Your task to perform on an android device: choose inbox layout in the gmail app Image 0: 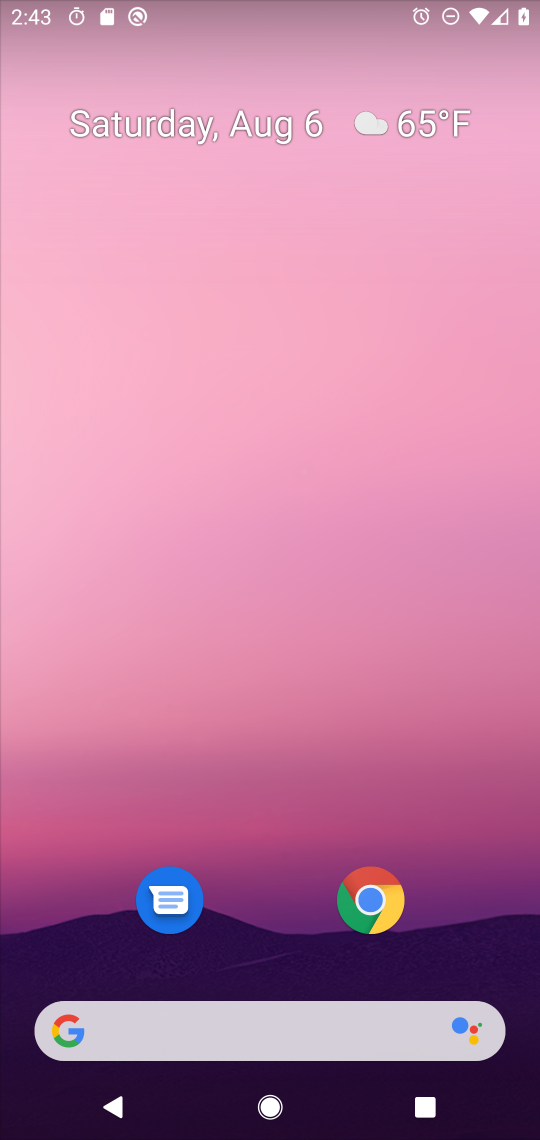
Step 0: drag from (257, 764) to (259, 58)
Your task to perform on an android device: choose inbox layout in the gmail app Image 1: 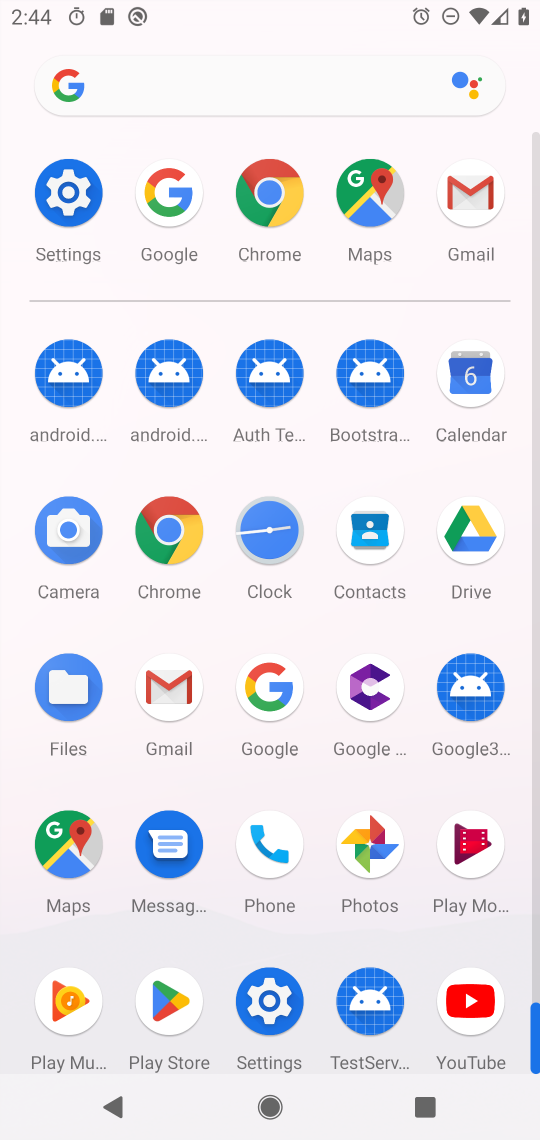
Step 1: click (165, 688)
Your task to perform on an android device: choose inbox layout in the gmail app Image 2: 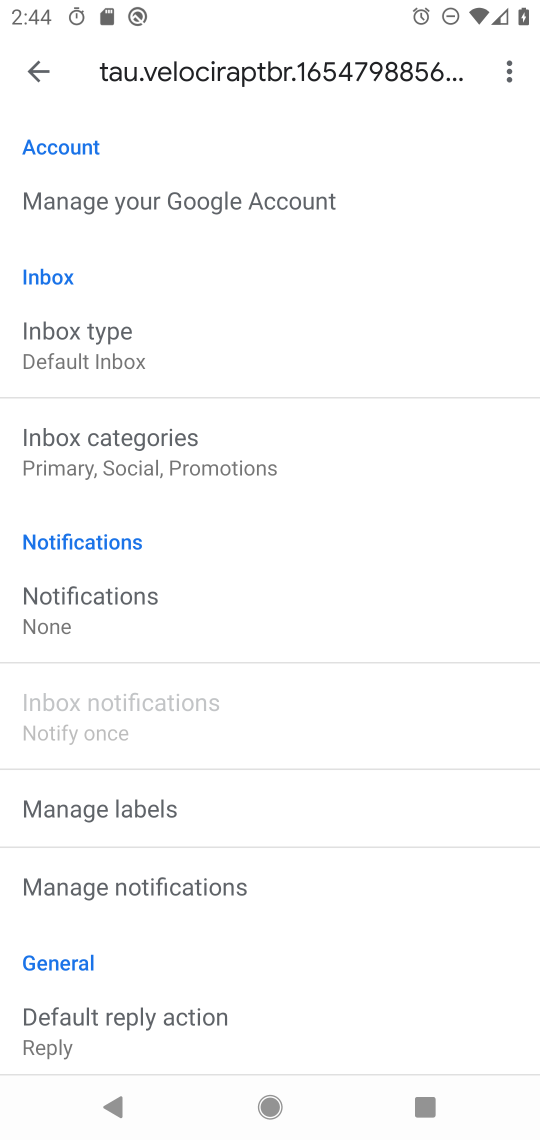
Step 2: click (75, 353)
Your task to perform on an android device: choose inbox layout in the gmail app Image 3: 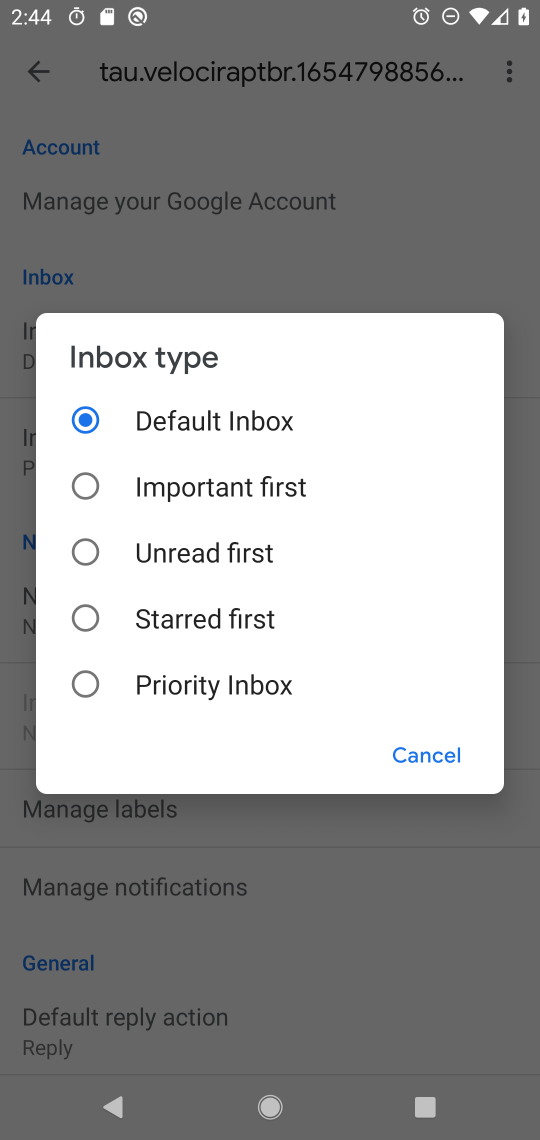
Step 3: click (91, 485)
Your task to perform on an android device: choose inbox layout in the gmail app Image 4: 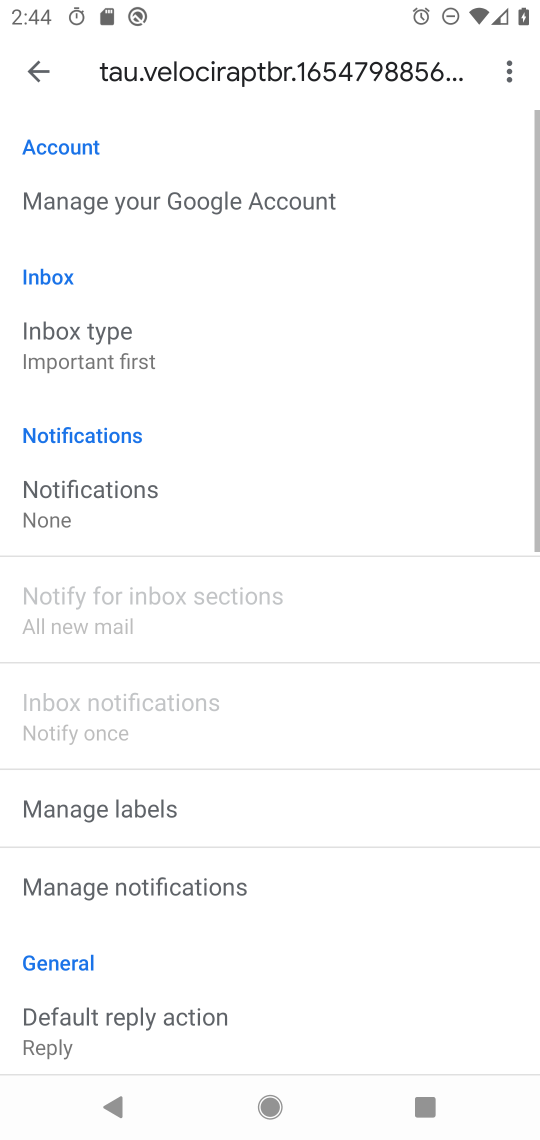
Step 4: task complete